Your task to perform on an android device: Clear the shopping cart on ebay.com. Add "jbl charge 4" to the cart on ebay.com Image 0: 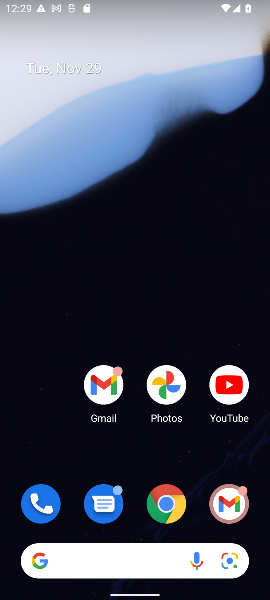
Step 0: click (165, 504)
Your task to perform on an android device: Clear the shopping cart on ebay.com. Add "jbl charge 4" to the cart on ebay.com Image 1: 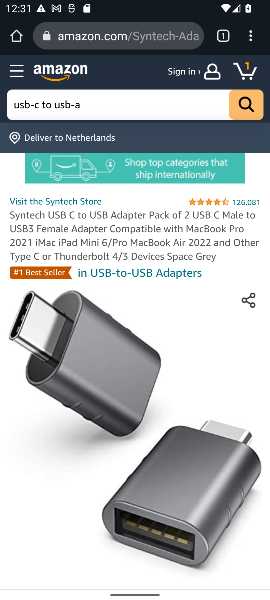
Step 1: click (105, 36)
Your task to perform on an android device: Clear the shopping cart on ebay.com. Add "jbl charge 4" to the cart on ebay.com Image 2: 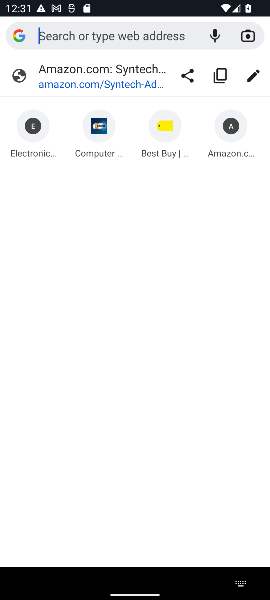
Step 2: type "ebay.com"
Your task to perform on an android device: Clear the shopping cart on ebay.com. Add "jbl charge 4" to the cart on ebay.com Image 3: 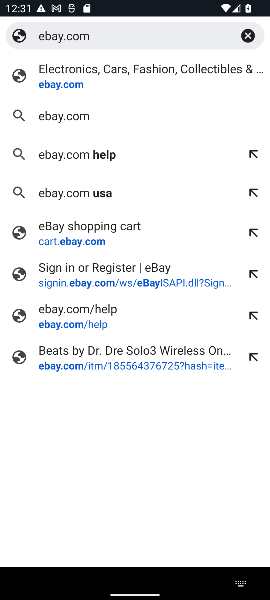
Step 3: click (51, 85)
Your task to perform on an android device: Clear the shopping cart on ebay.com. Add "jbl charge 4" to the cart on ebay.com Image 4: 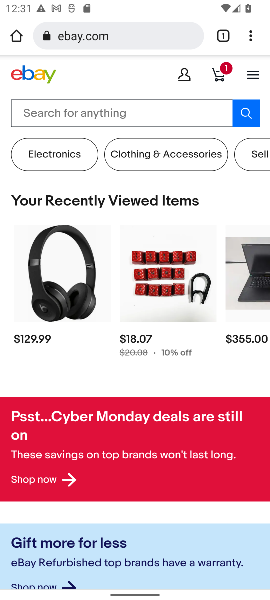
Step 4: click (218, 75)
Your task to perform on an android device: Clear the shopping cart on ebay.com. Add "jbl charge 4" to the cart on ebay.com Image 5: 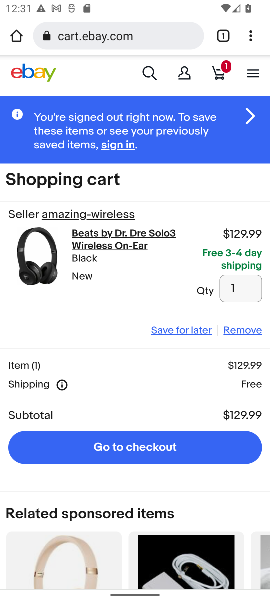
Step 5: click (240, 330)
Your task to perform on an android device: Clear the shopping cart on ebay.com. Add "jbl charge 4" to the cart on ebay.com Image 6: 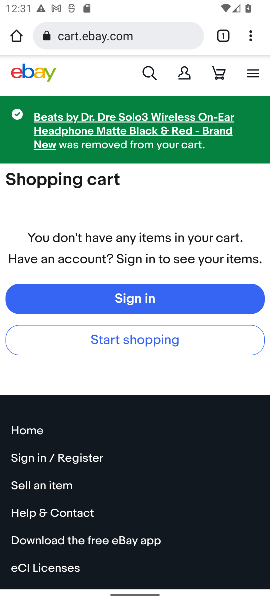
Step 6: click (149, 71)
Your task to perform on an android device: Clear the shopping cart on ebay.com. Add "jbl charge 4" to the cart on ebay.com Image 7: 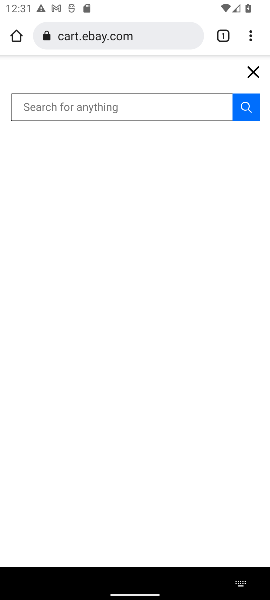
Step 7: type "jbl charge 4"
Your task to perform on an android device: Clear the shopping cart on ebay.com. Add "jbl charge 4" to the cart on ebay.com Image 8: 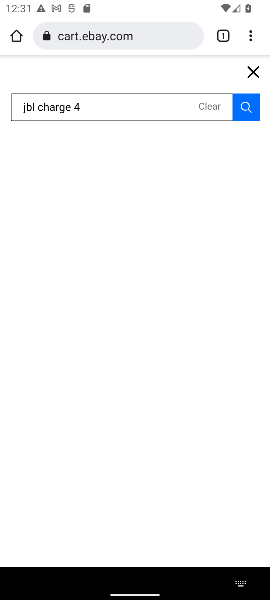
Step 8: click (247, 109)
Your task to perform on an android device: Clear the shopping cart on ebay.com. Add "jbl charge 4" to the cart on ebay.com Image 9: 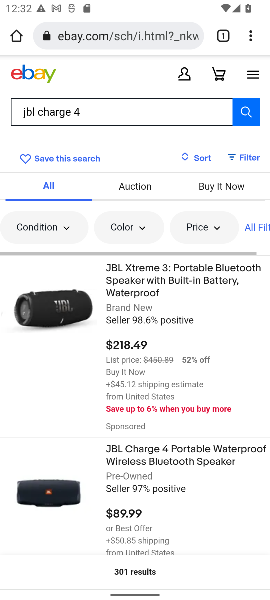
Step 9: click (122, 462)
Your task to perform on an android device: Clear the shopping cart on ebay.com. Add "jbl charge 4" to the cart on ebay.com Image 10: 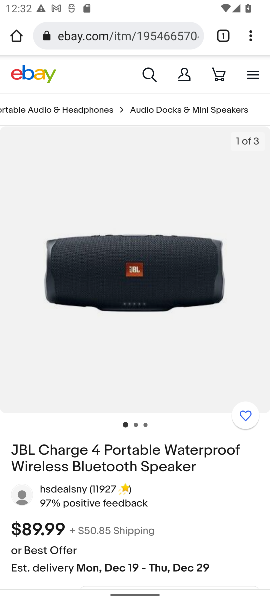
Step 10: drag from (122, 462) to (112, 334)
Your task to perform on an android device: Clear the shopping cart on ebay.com. Add "jbl charge 4" to the cart on ebay.com Image 11: 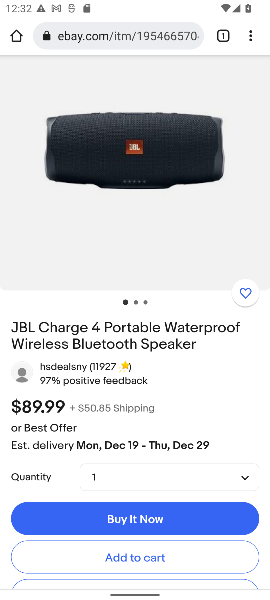
Step 11: click (121, 551)
Your task to perform on an android device: Clear the shopping cart on ebay.com. Add "jbl charge 4" to the cart on ebay.com Image 12: 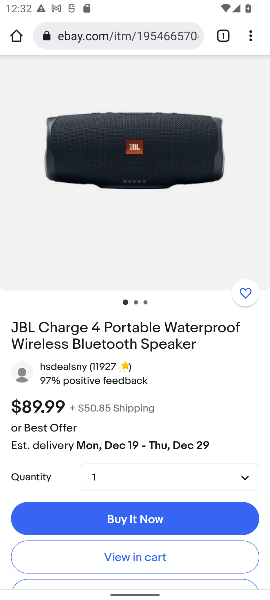
Step 12: task complete